Your task to perform on an android device: Do I have any events this weekend? Image 0: 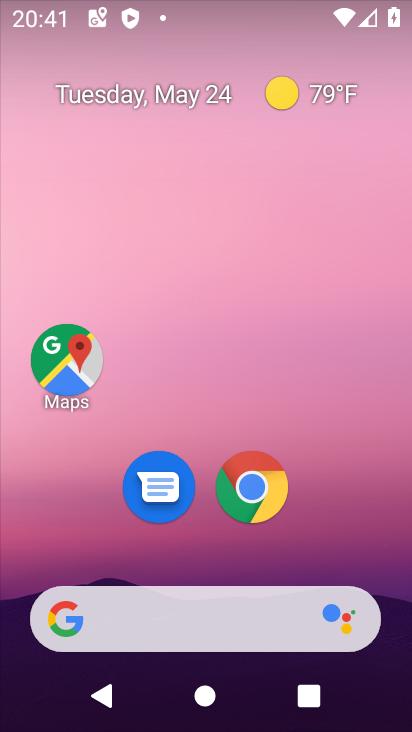
Step 0: drag from (332, 543) to (354, 87)
Your task to perform on an android device: Do I have any events this weekend? Image 1: 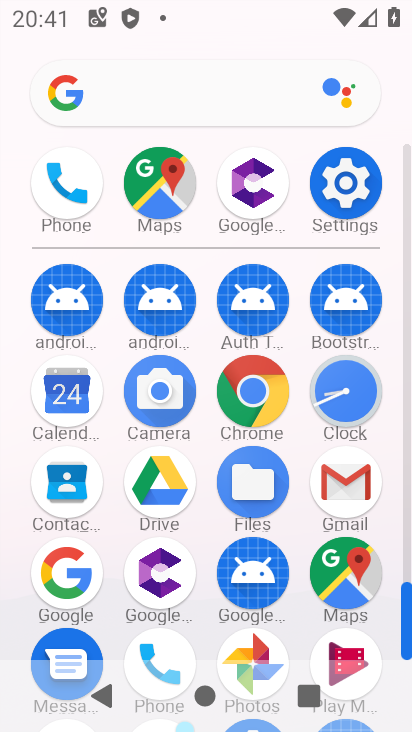
Step 1: click (65, 396)
Your task to perform on an android device: Do I have any events this weekend? Image 2: 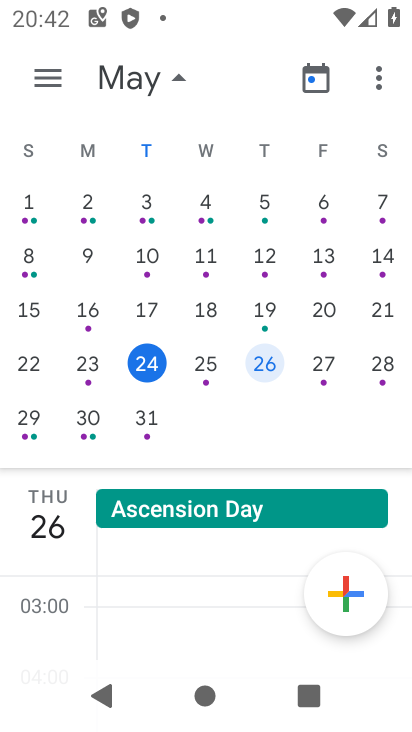
Step 2: click (38, 76)
Your task to perform on an android device: Do I have any events this weekend? Image 3: 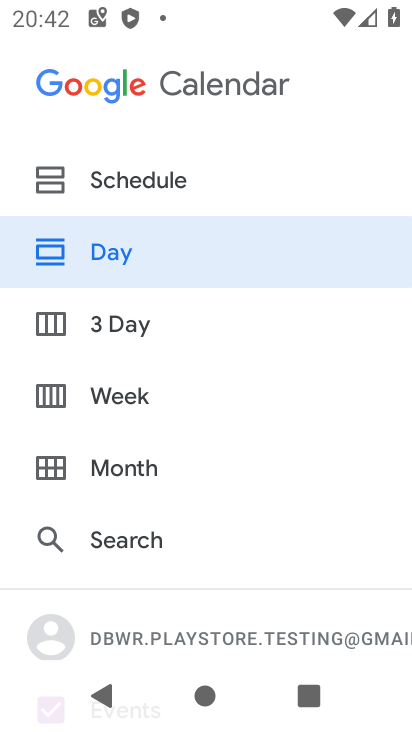
Step 3: click (138, 169)
Your task to perform on an android device: Do I have any events this weekend? Image 4: 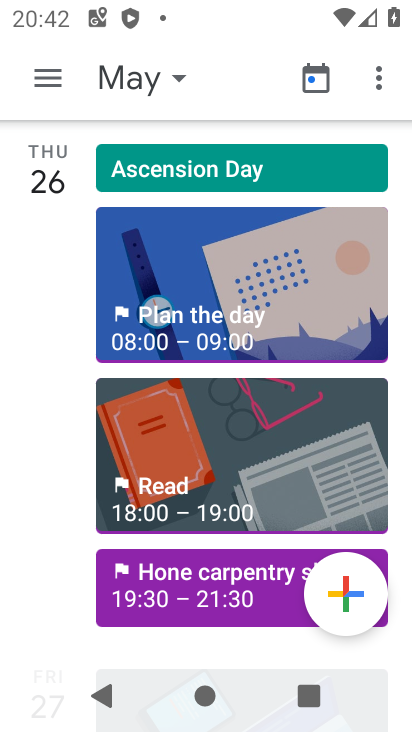
Step 4: task complete